Your task to perform on an android device: turn on wifi Image 0: 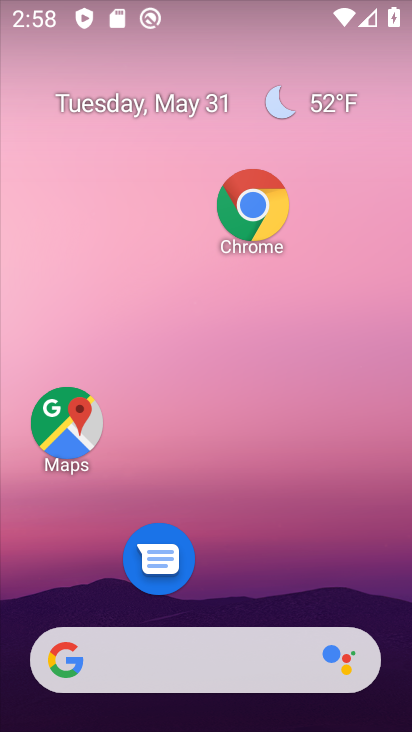
Step 0: drag from (198, 480) to (198, 220)
Your task to perform on an android device: turn on wifi Image 1: 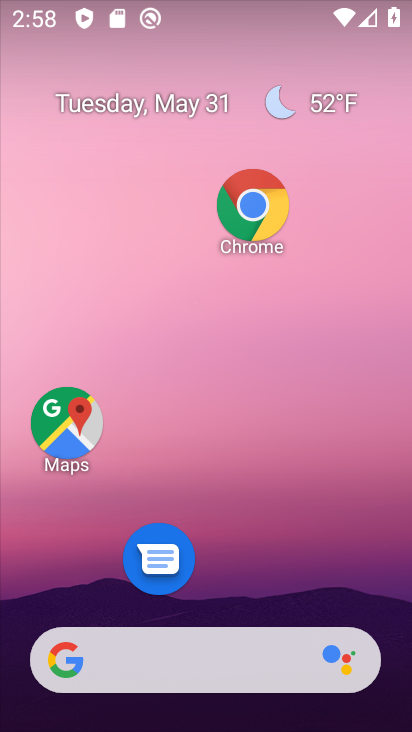
Step 1: drag from (212, 603) to (194, 159)
Your task to perform on an android device: turn on wifi Image 2: 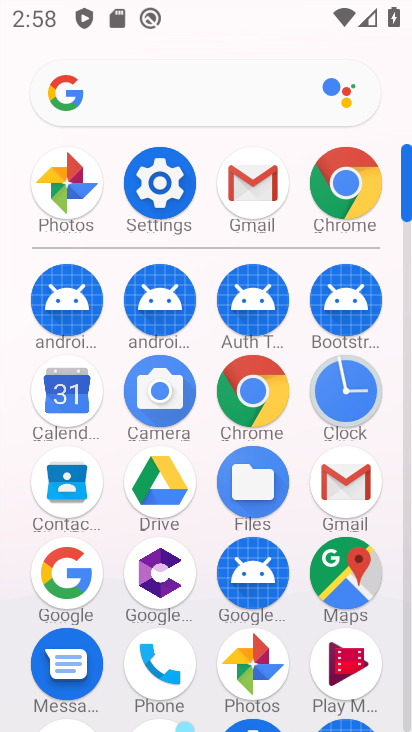
Step 2: click (165, 213)
Your task to perform on an android device: turn on wifi Image 3: 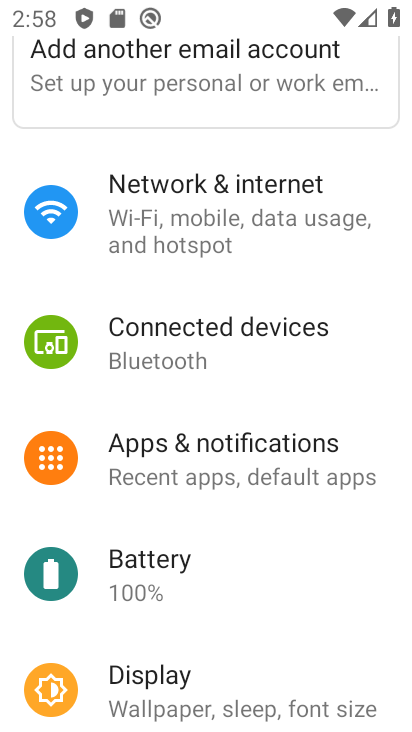
Step 3: click (203, 184)
Your task to perform on an android device: turn on wifi Image 4: 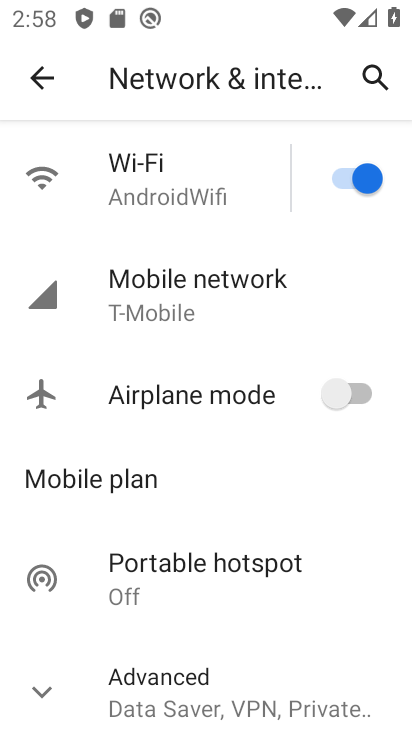
Step 4: task complete